Your task to perform on an android device: Go to Yahoo.com Image 0: 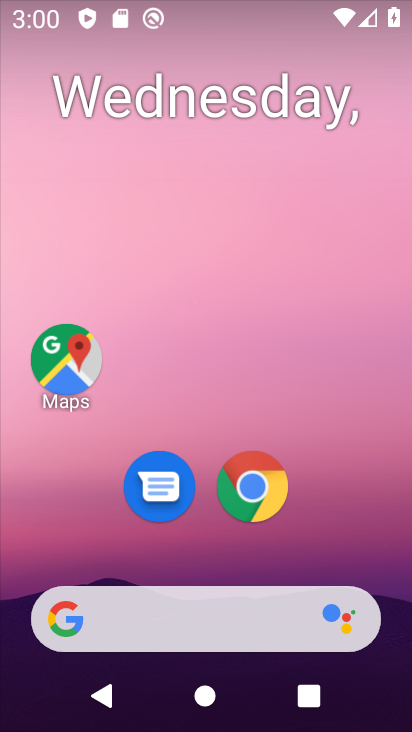
Step 0: click (257, 478)
Your task to perform on an android device: Go to Yahoo.com Image 1: 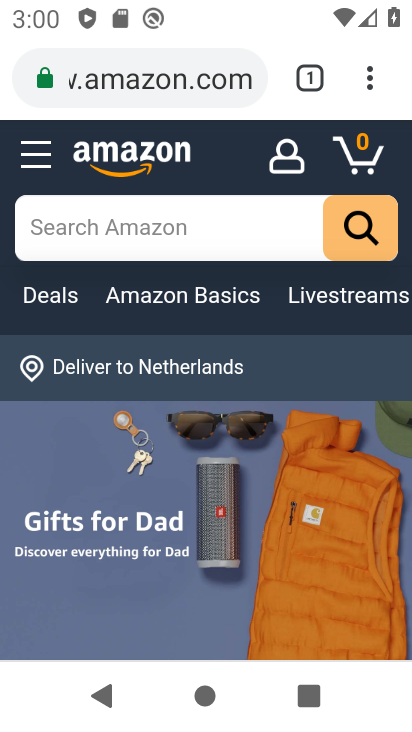
Step 1: click (320, 81)
Your task to perform on an android device: Go to Yahoo.com Image 2: 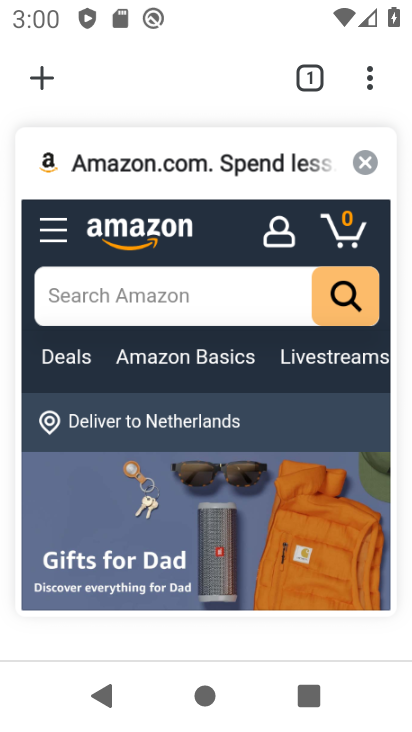
Step 2: click (369, 166)
Your task to perform on an android device: Go to Yahoo.com Image 3: 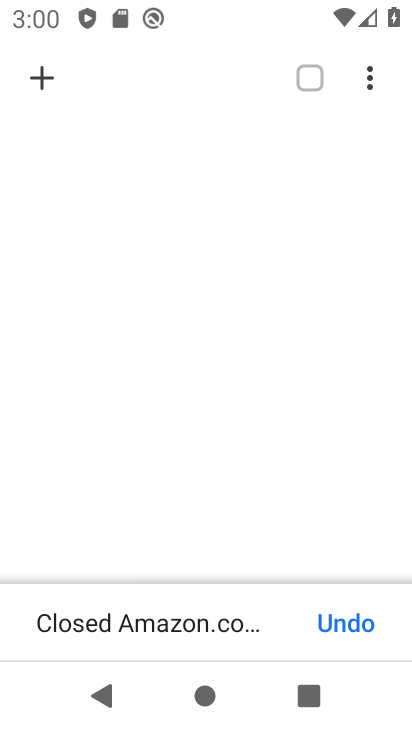
Step 3: click (45, 81)
Your task to perform on an android device: Go to Yahoo.com Image 4: 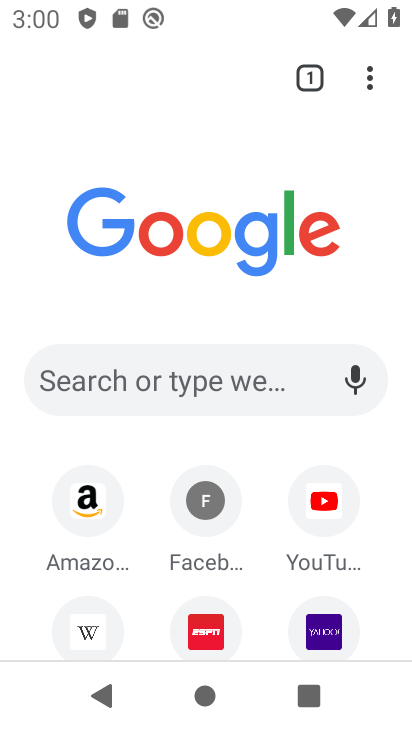
Step 4: click (309, 636)
Your task to perform on an android device: Go to Yahoo.com Image 5: 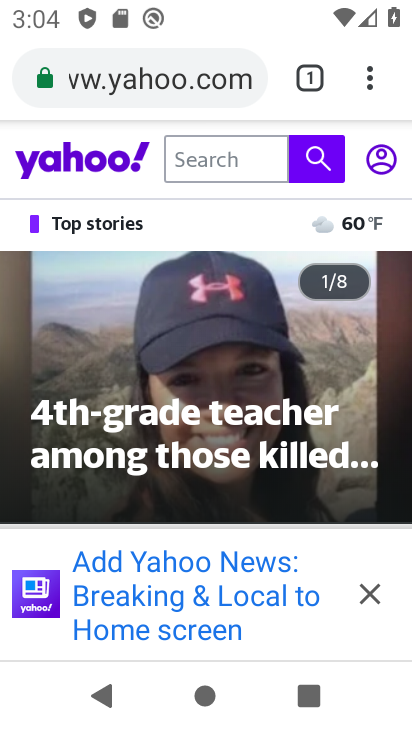
Step 5: task complete